Your task to perform on an android device: clear history in the chrome app Image 0: 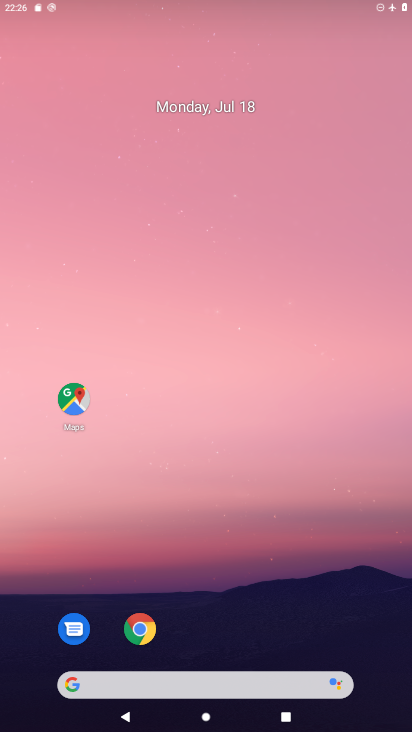
Step 0: drag from (282, 550) to (226, 136)
Your task to perform on an android device: clear history in the chrome app Image 1: 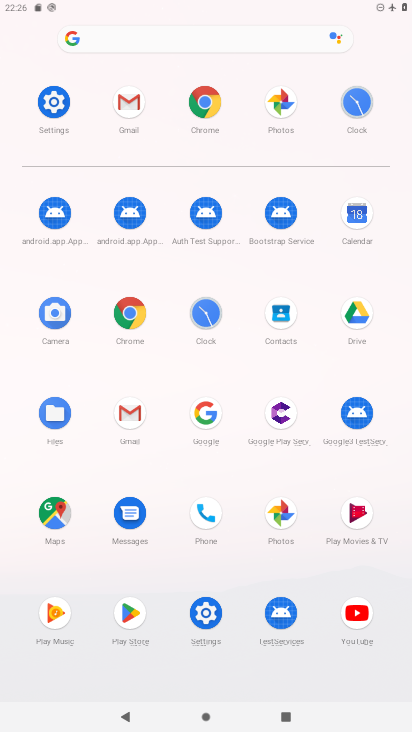
Step 1: click (202, 113)
Your task to perform on an android device: clear history in the chrome app Image 2: 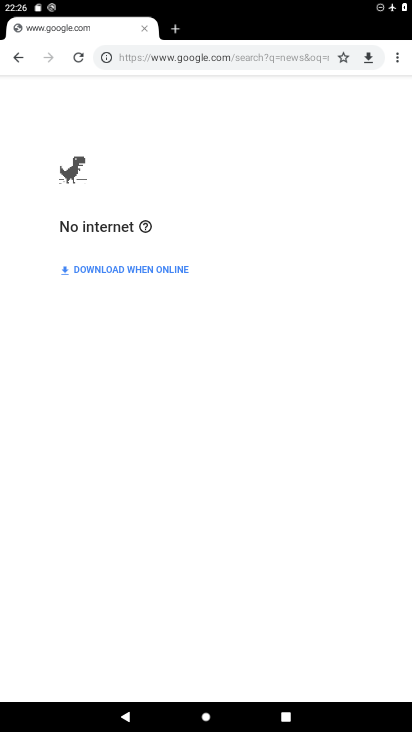
Step 2: drag from (399, 51) to (276, 211)
Your task to perform on an android device: clear history in the chrome app Image 3: 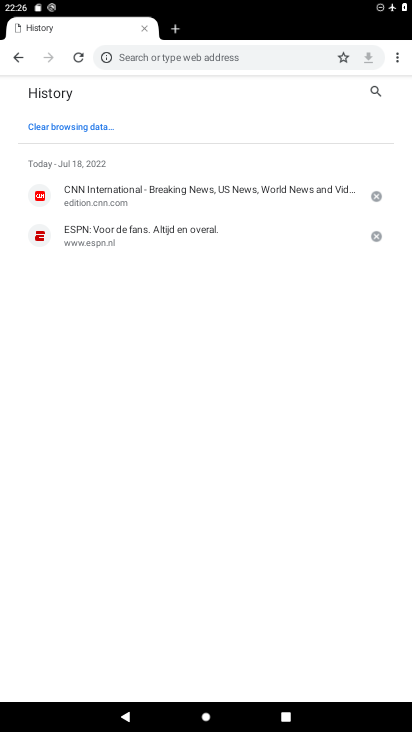
Step 3: click (82, 123)
Your task to perform on an android device: clear history in the chrome app Image 4: 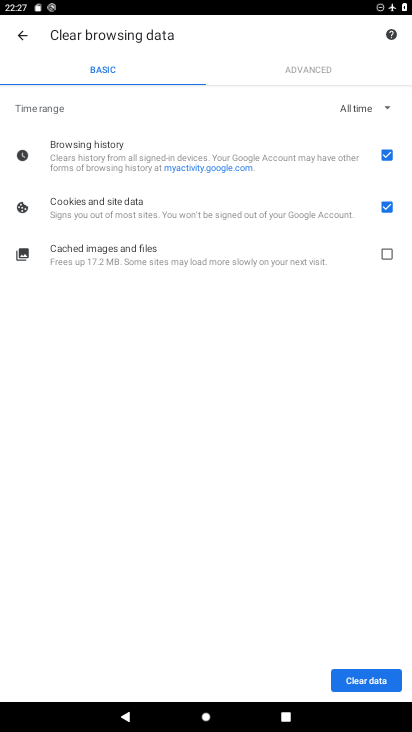
Step 4: click (377, 689)
Your task to perform on an android device: clear history in the chrome app Image 5: 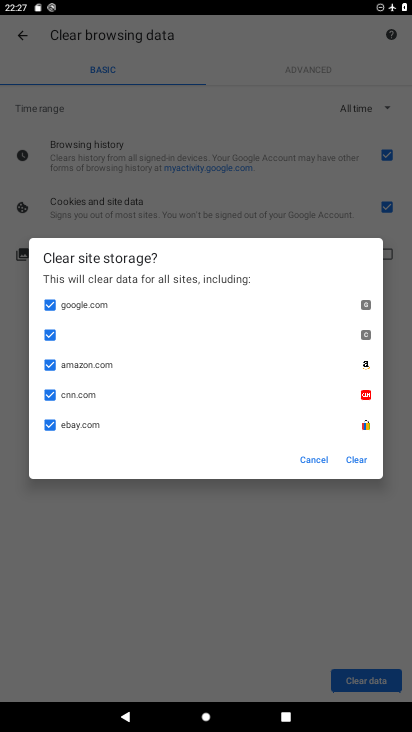
Step 5: click (354, 460)
Your task to perform on an android device: clear history in the chrome app Image 6: 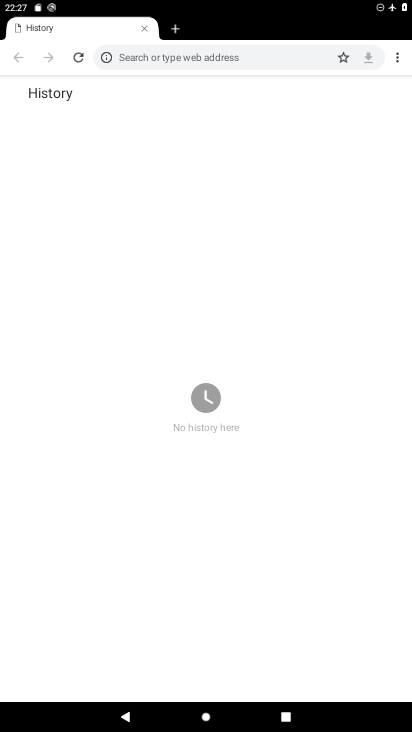
Step 6: task complete